Your task to perform on an android device: open the mobile data screen to see how much data has been used Image 0: 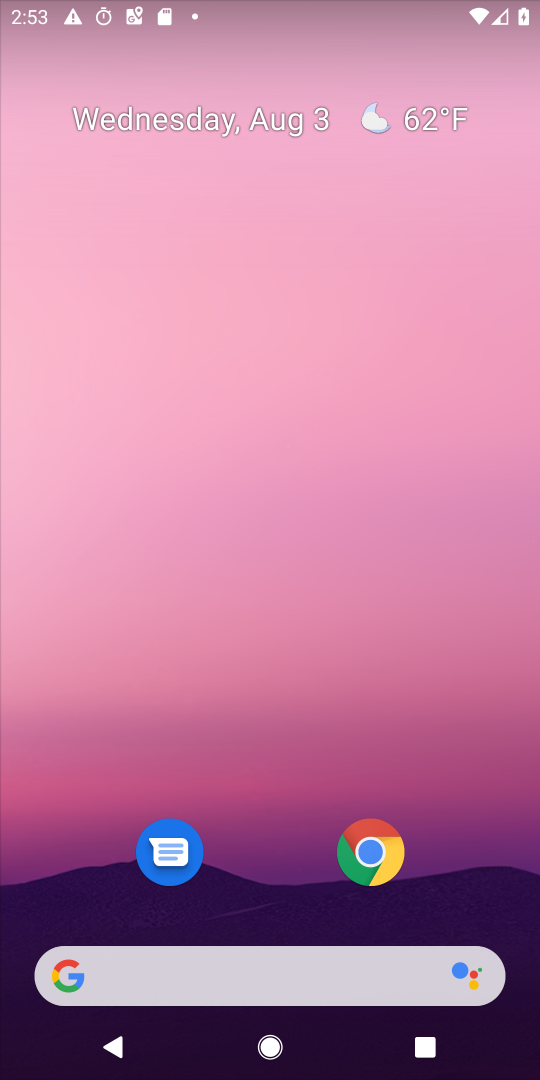
Step 0: drag from (470, 879) to (291, 69)
Your task to perform on an android device: open the mobile data screen to see how much data has been used Image 1: 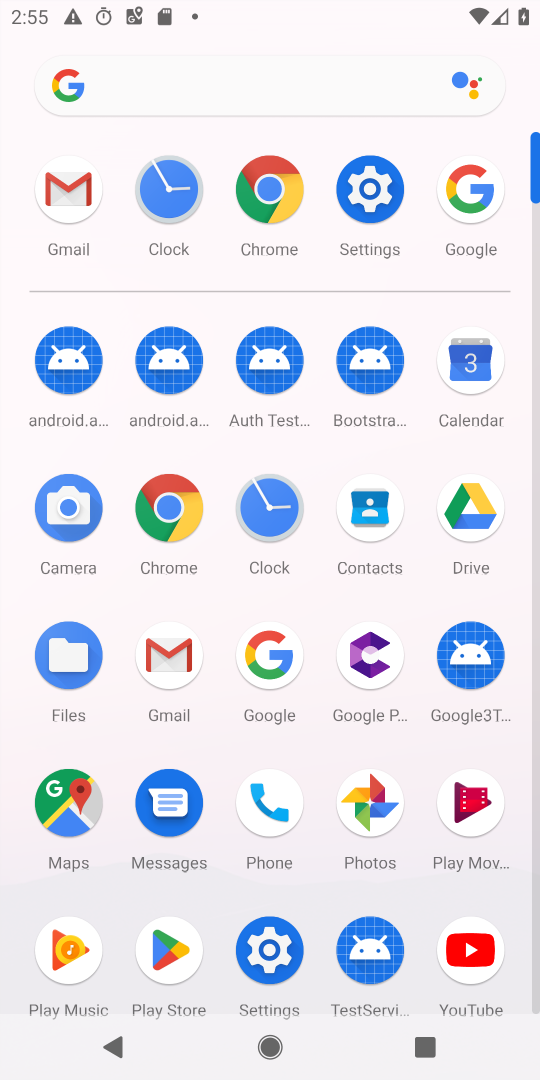
Step 1: click (363, 197)
Your task to perform on an android device: open the mobile data screen to see how much data has been used Image 2: 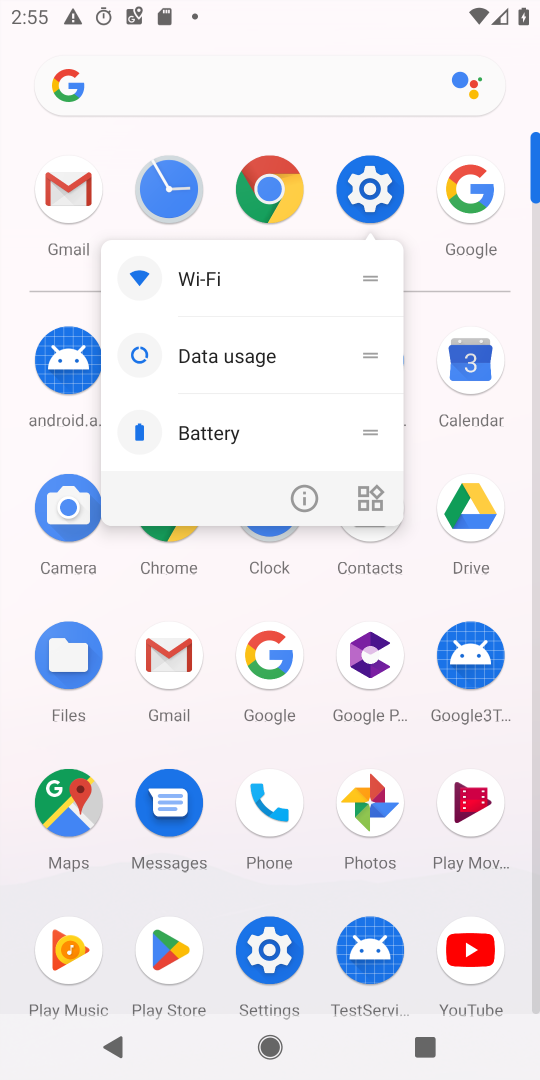
Step 2: click (360, 181)
Your task to perform on an android device: open the mobile data screen to see how much data has been used Image 3: 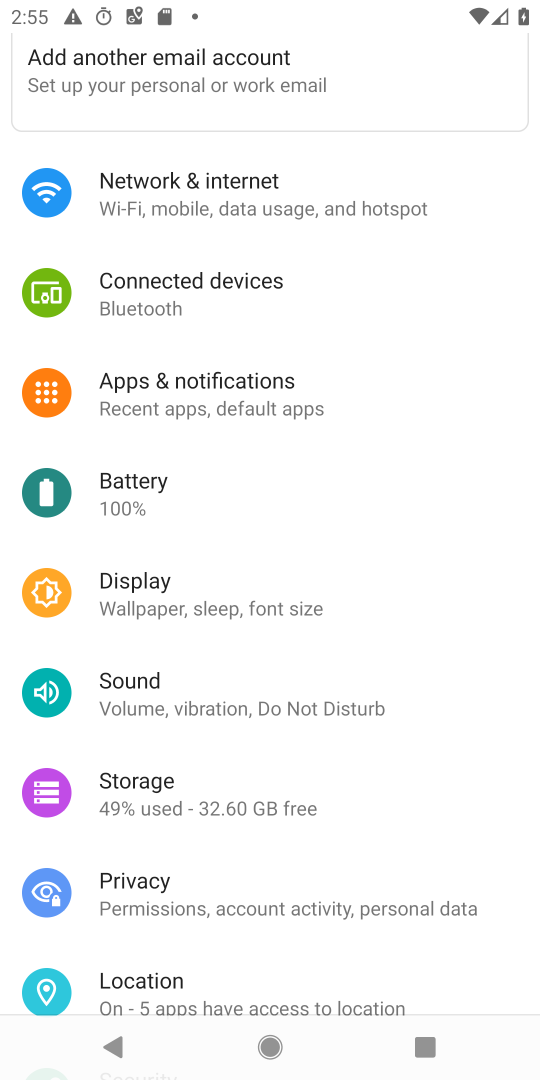
Step 3: task complete